Your task to perform on an android device: turn on the 24-hour format for clock Image 0: 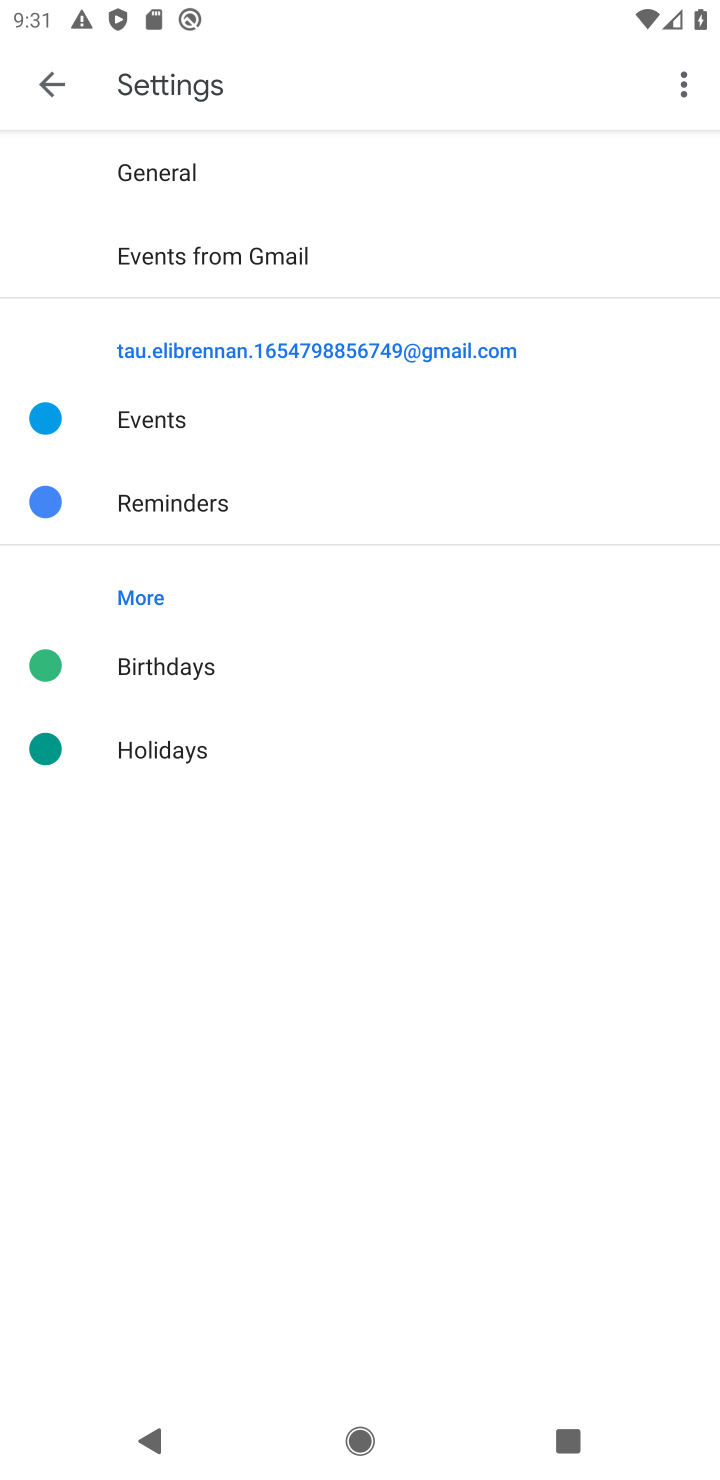
Step 0: press home button
Your task to perform on an android device: turn on the 24-hour format for clock Image 1: 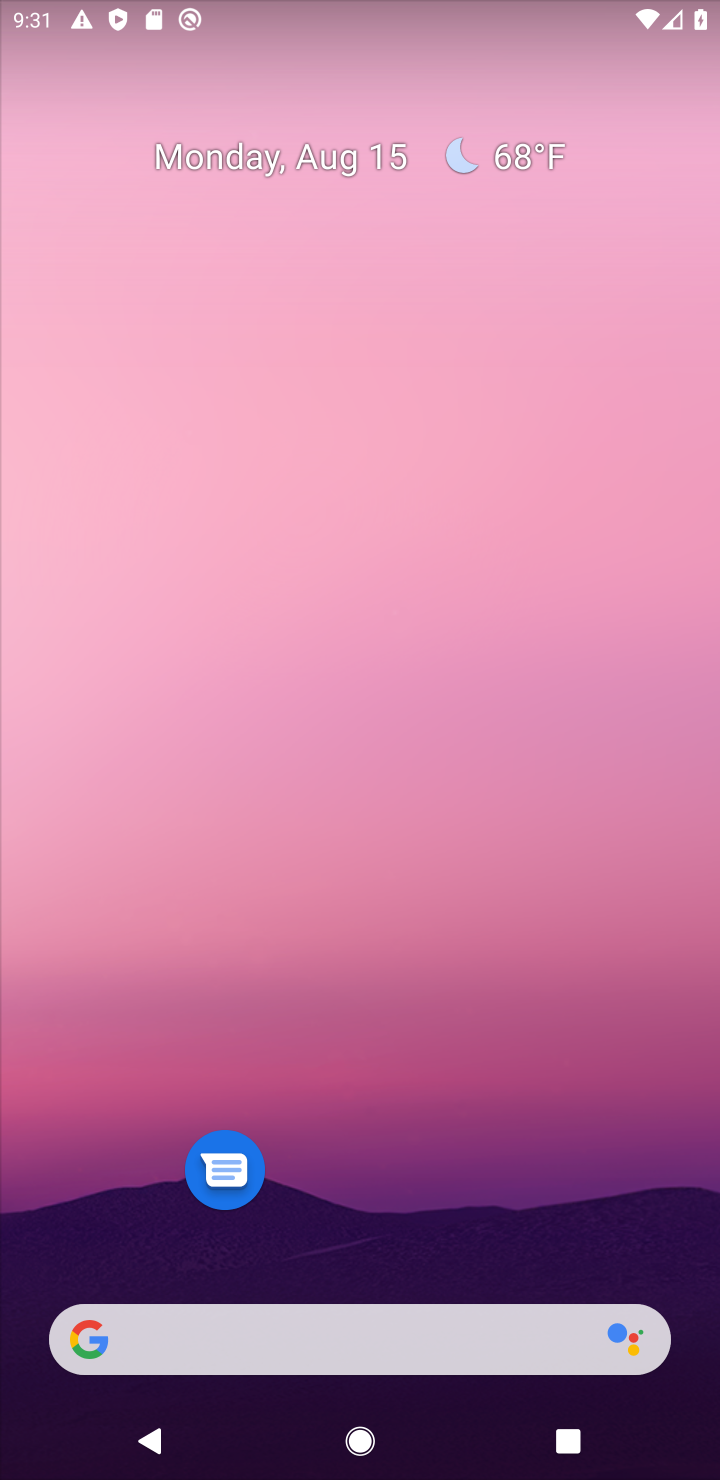
Step 1: drag from (359, 1265) to (529, 13)
Your task to perform on an android device: turn on the 24-hour format for clock Image 2: 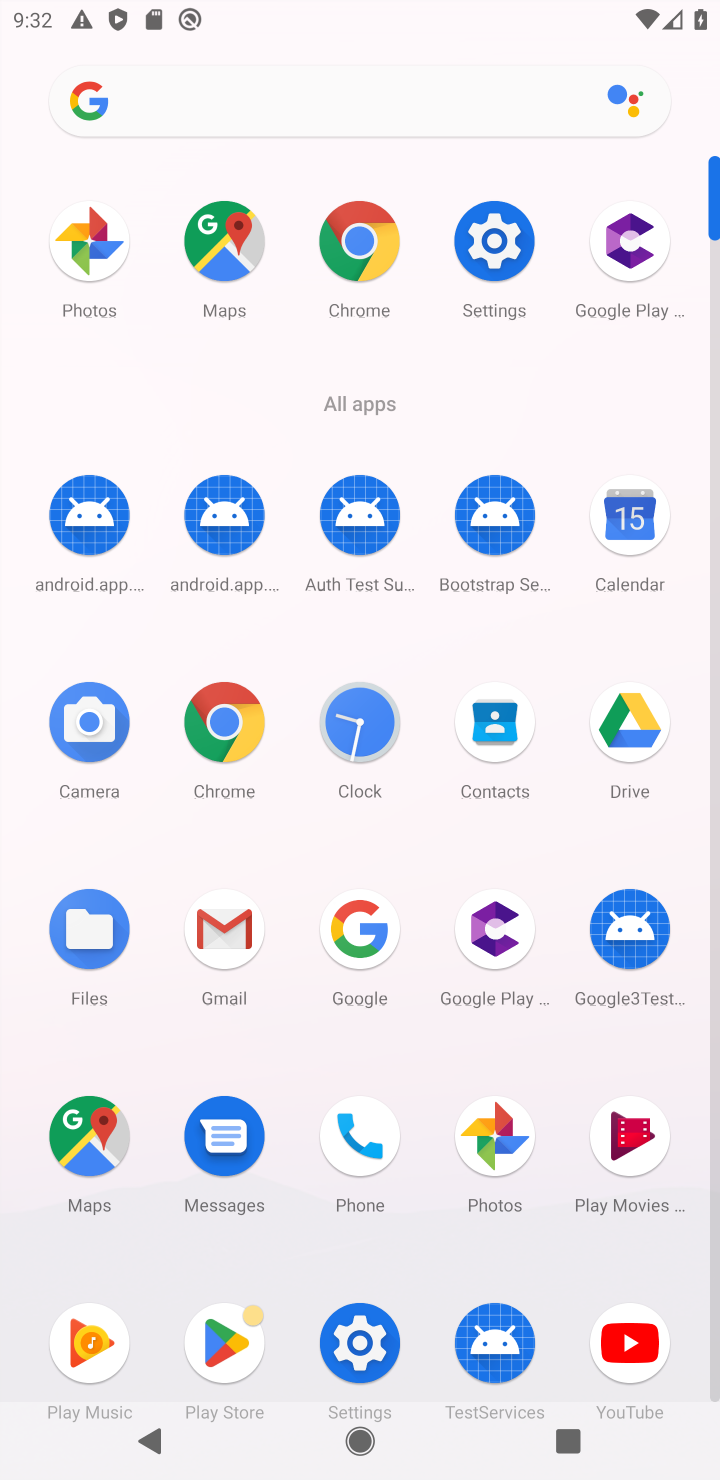
Step 2: click (354, 741)
Your task to perform on an android device: turn on the 24-hour format for clock Image 3: 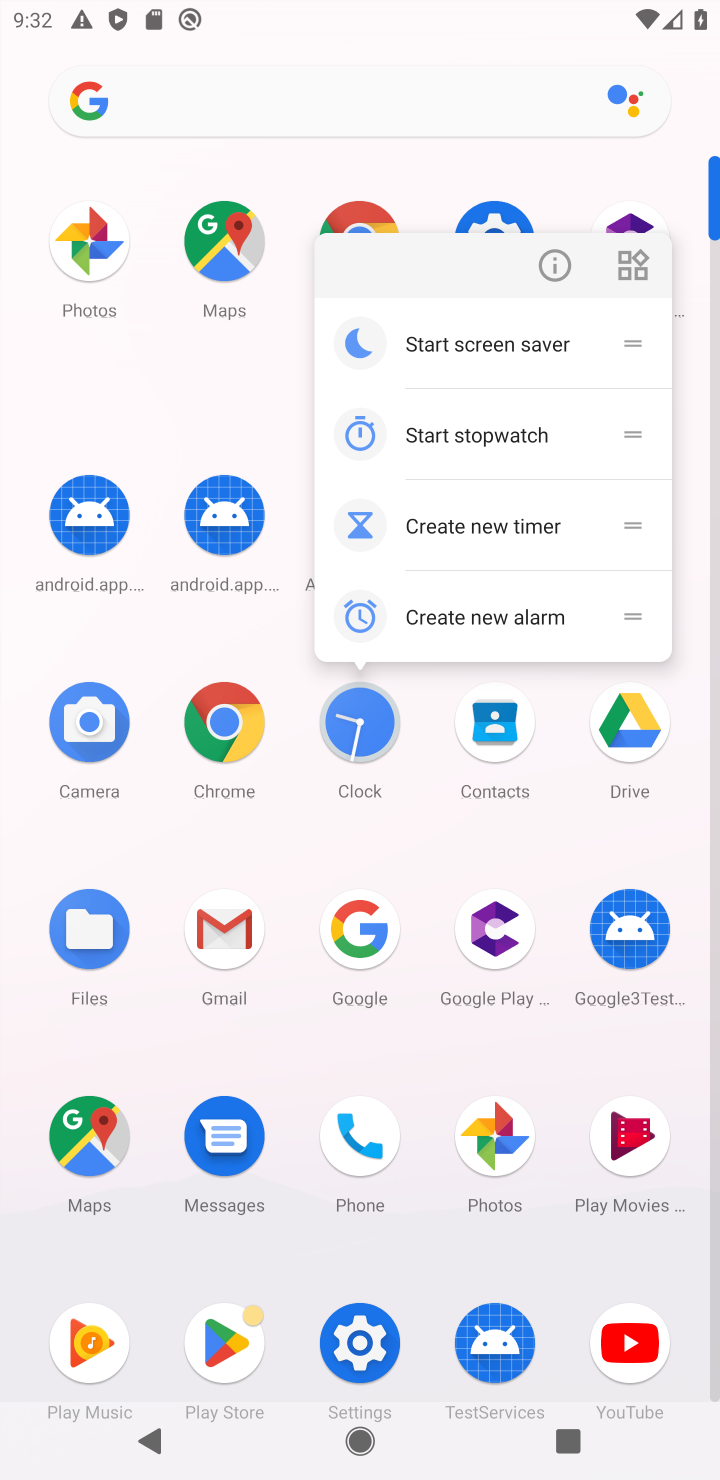
Step 3: click (354, 738)
Your task to perform on an android device: turn on the 24-hour format for clock Image 4: 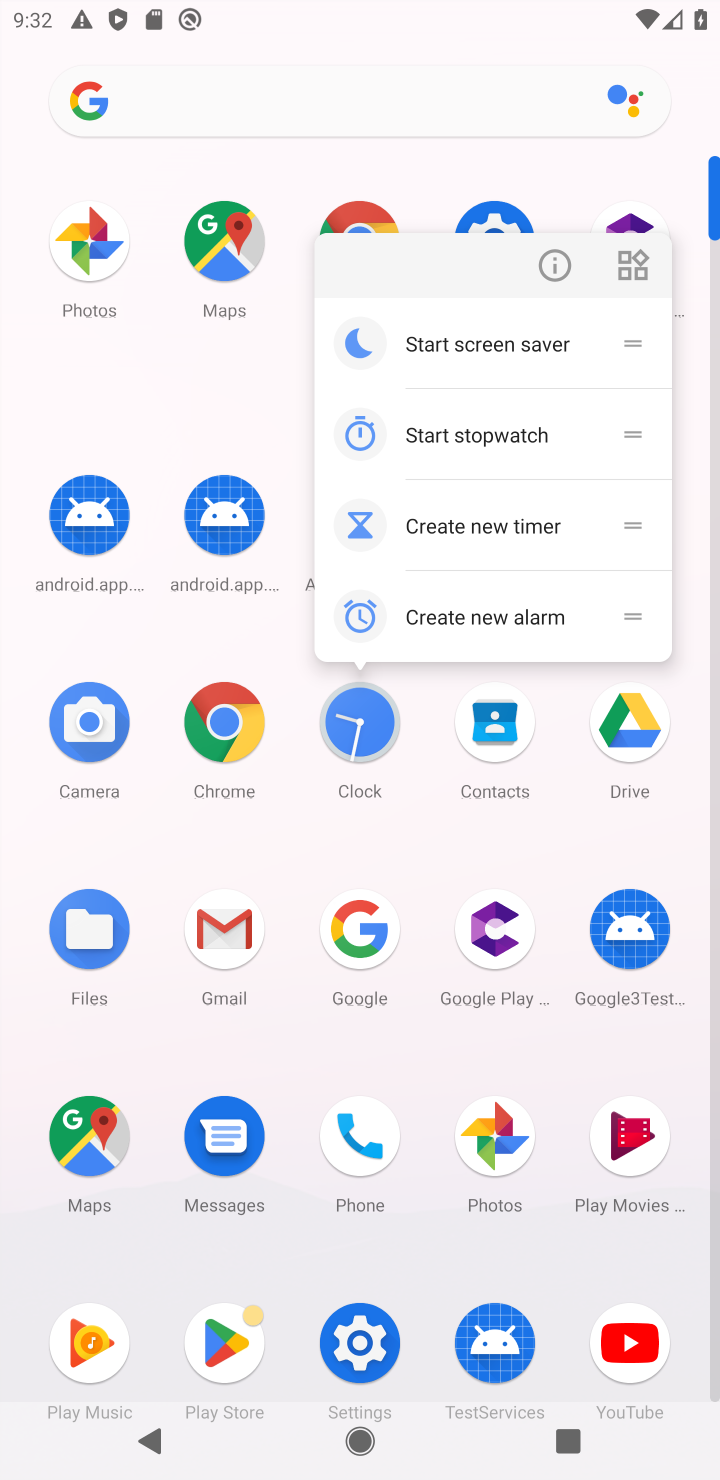
Step 4: click (347, 734)
Your task to perform on an android device: turn on the 24-hour format for clock Image 5: 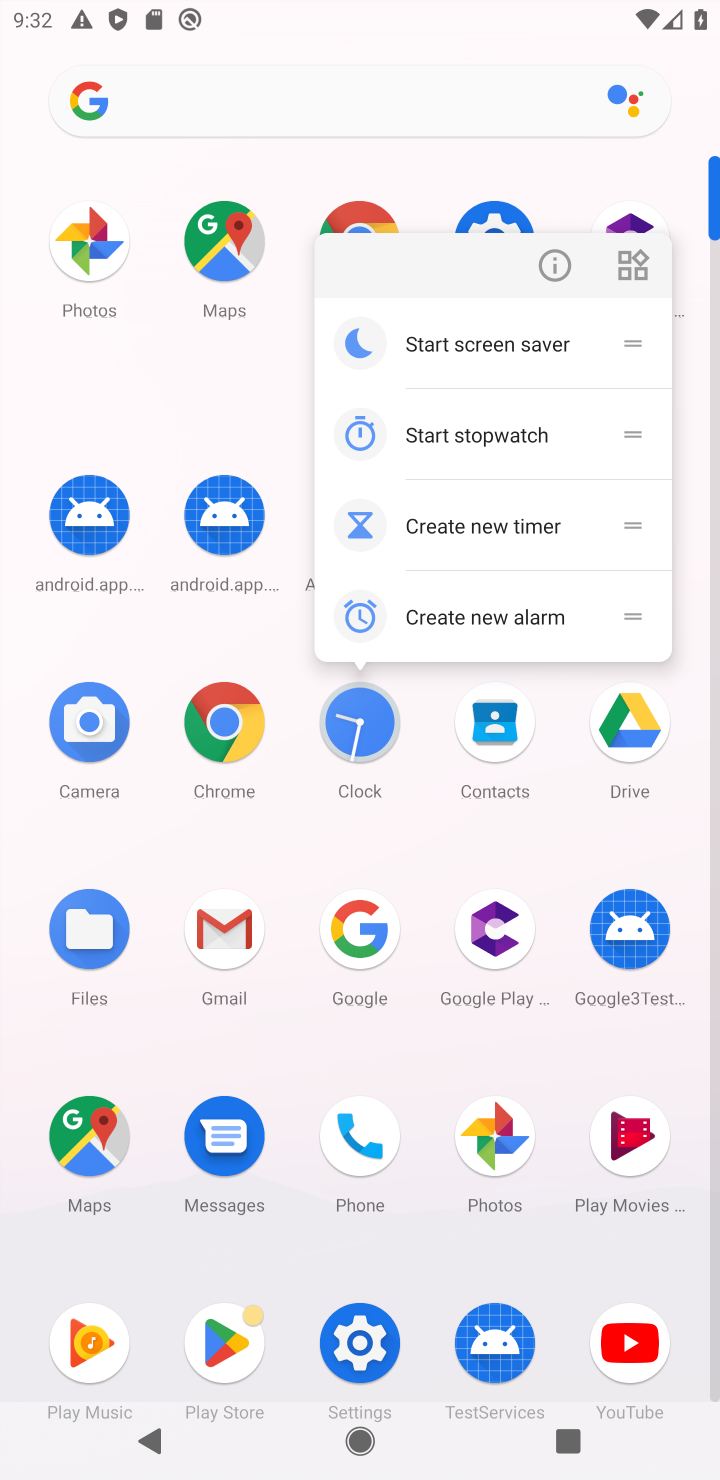
Step 5: click (335, 751)
Your task to perform on an android device: turn on the 24-hour format for clock Image 6: 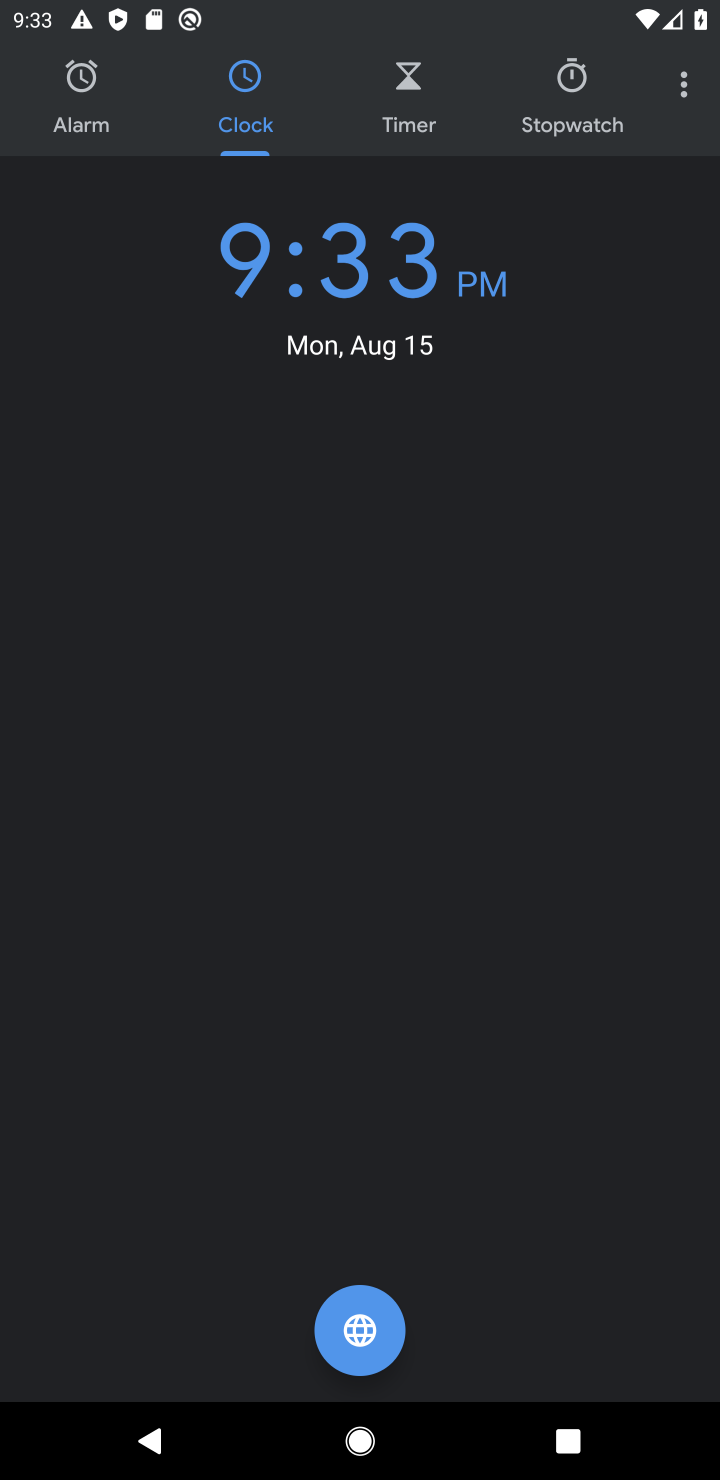
Step 6: click (693, 100)
Your task to perform on an android device: turn on the 24-hour format for clock Image 7: 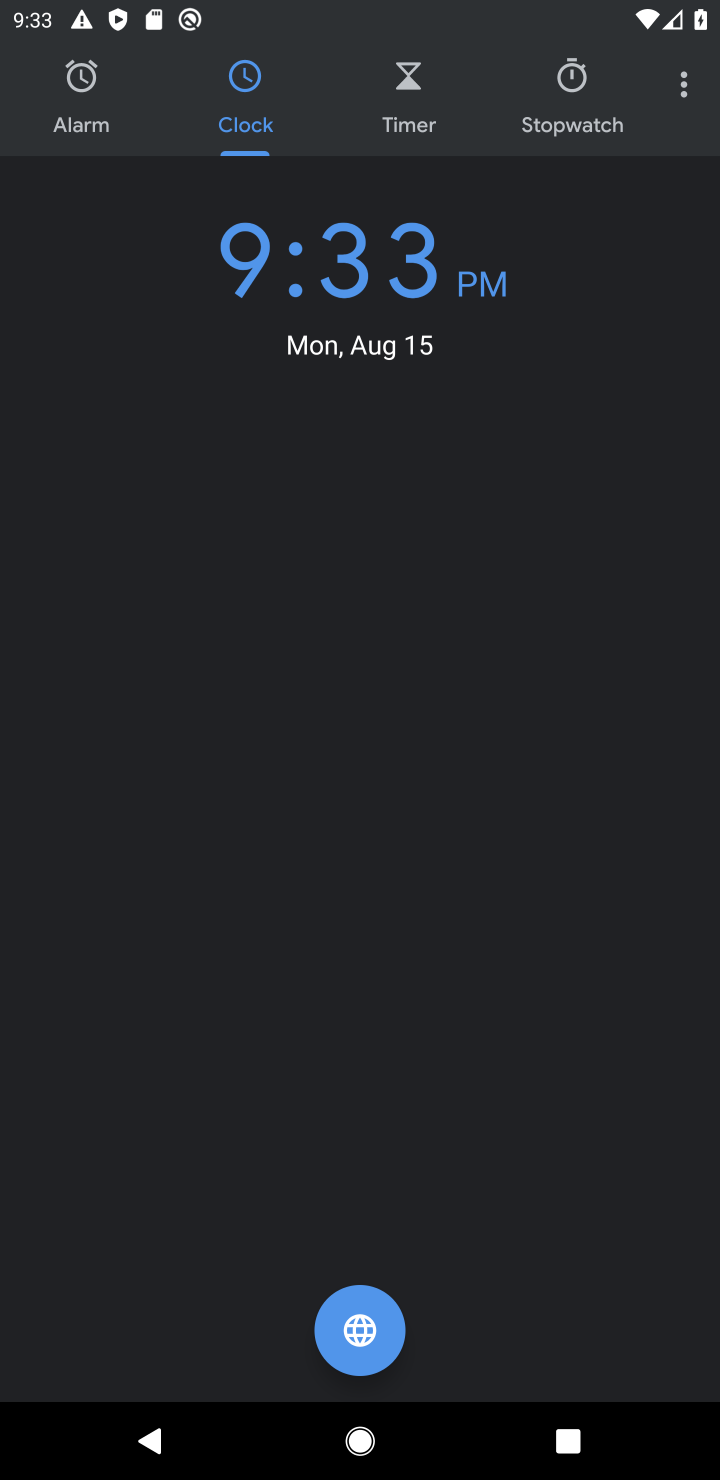
Step 7: click (552, 458)
Your task to perform on an android device: turn on the 24-hour format for clock Image 8: 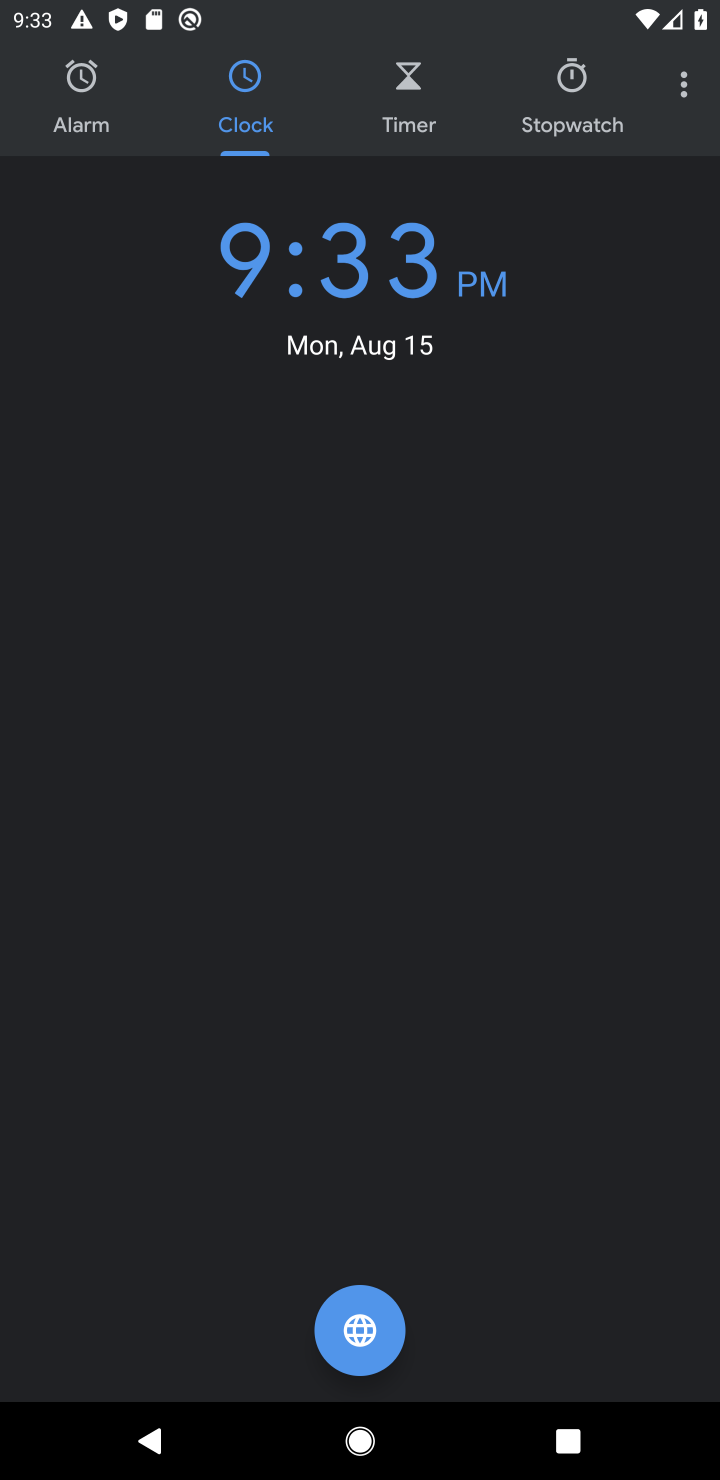
Step 8: click (586, 363)
Your task to perform on an android device: turn on the 24-hour format for clock Image 9: 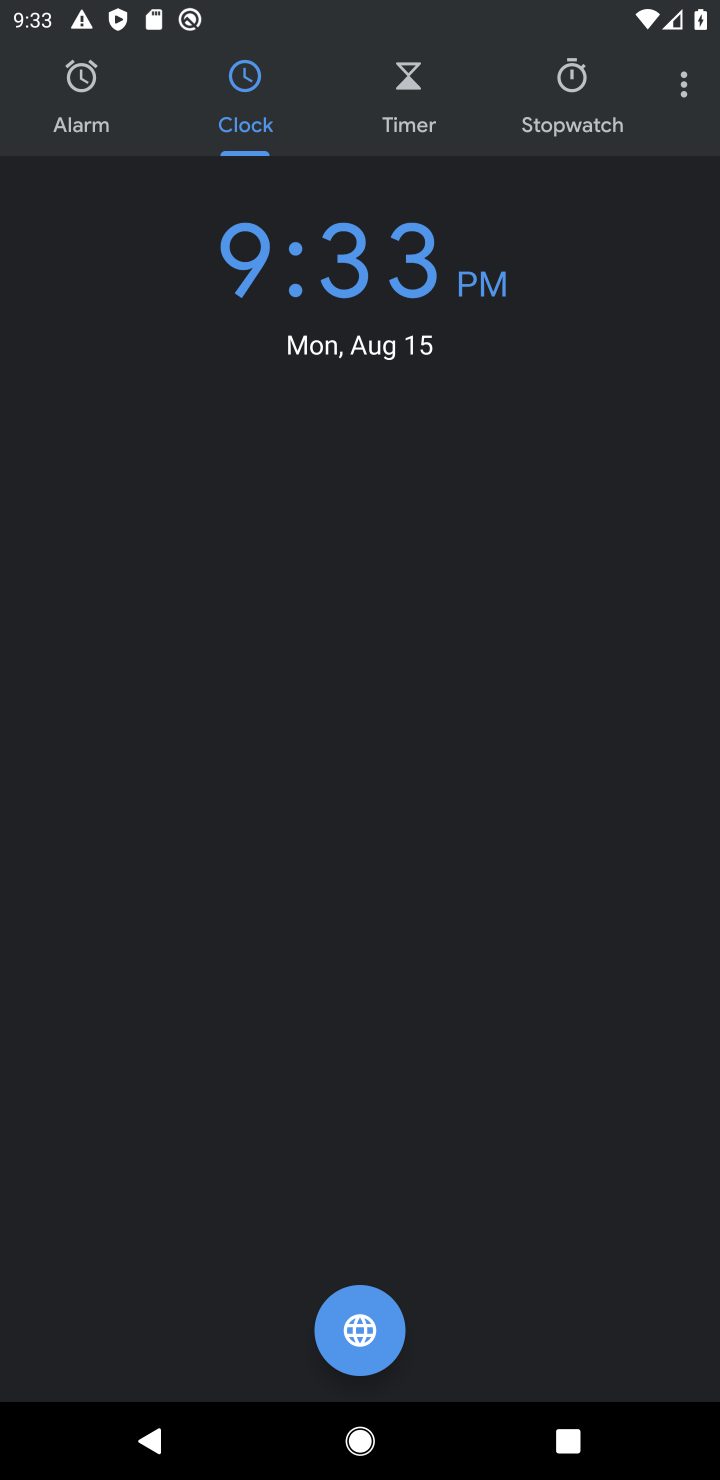
Step 9: click (667, 106)
Your task to perform on an android device: turn on the 24-hour format for clock Image 10: 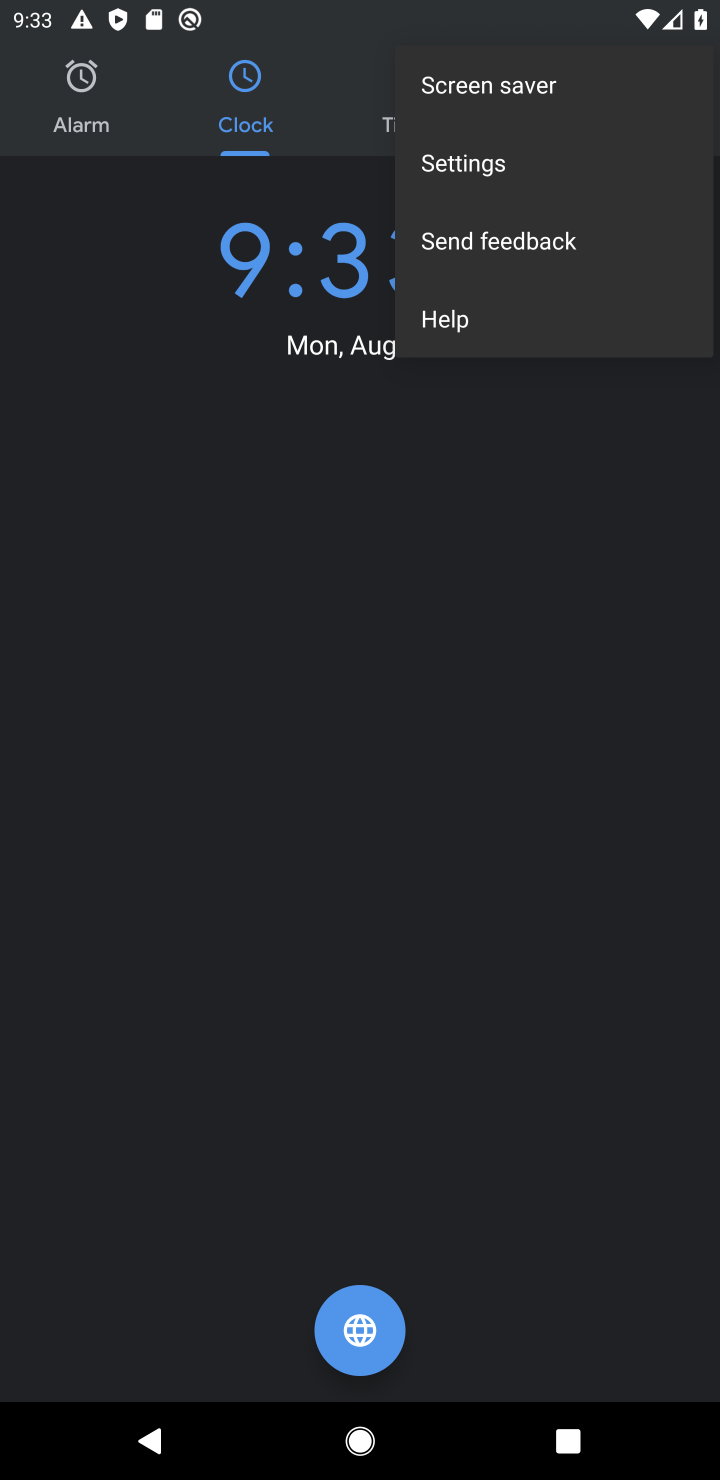
Step 10: click (490, 177)
Your task to perform on an android device: turn on the 24-hour format for clock Image 11: 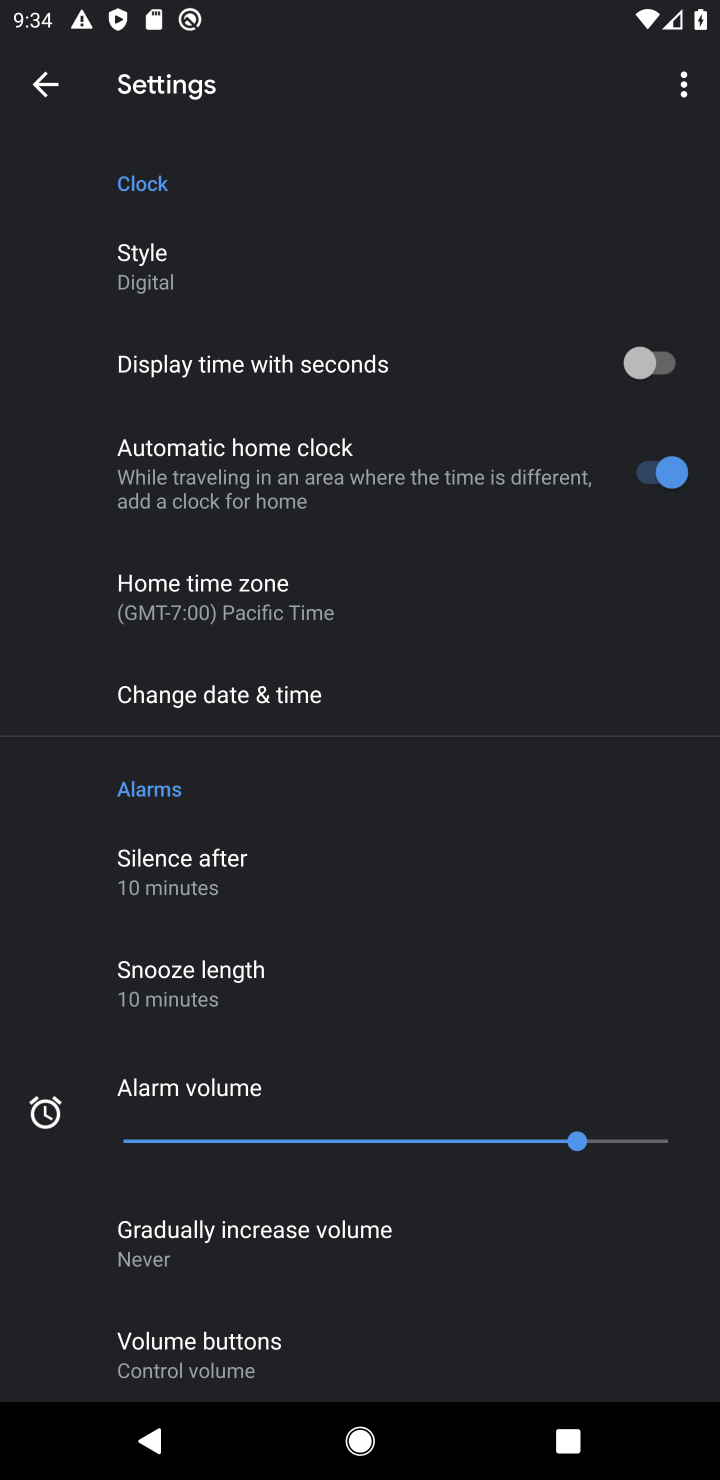
Step 11: click (229, 699)
Your task to perform on an android device: turn on the 24-hour format for clock Image 12: 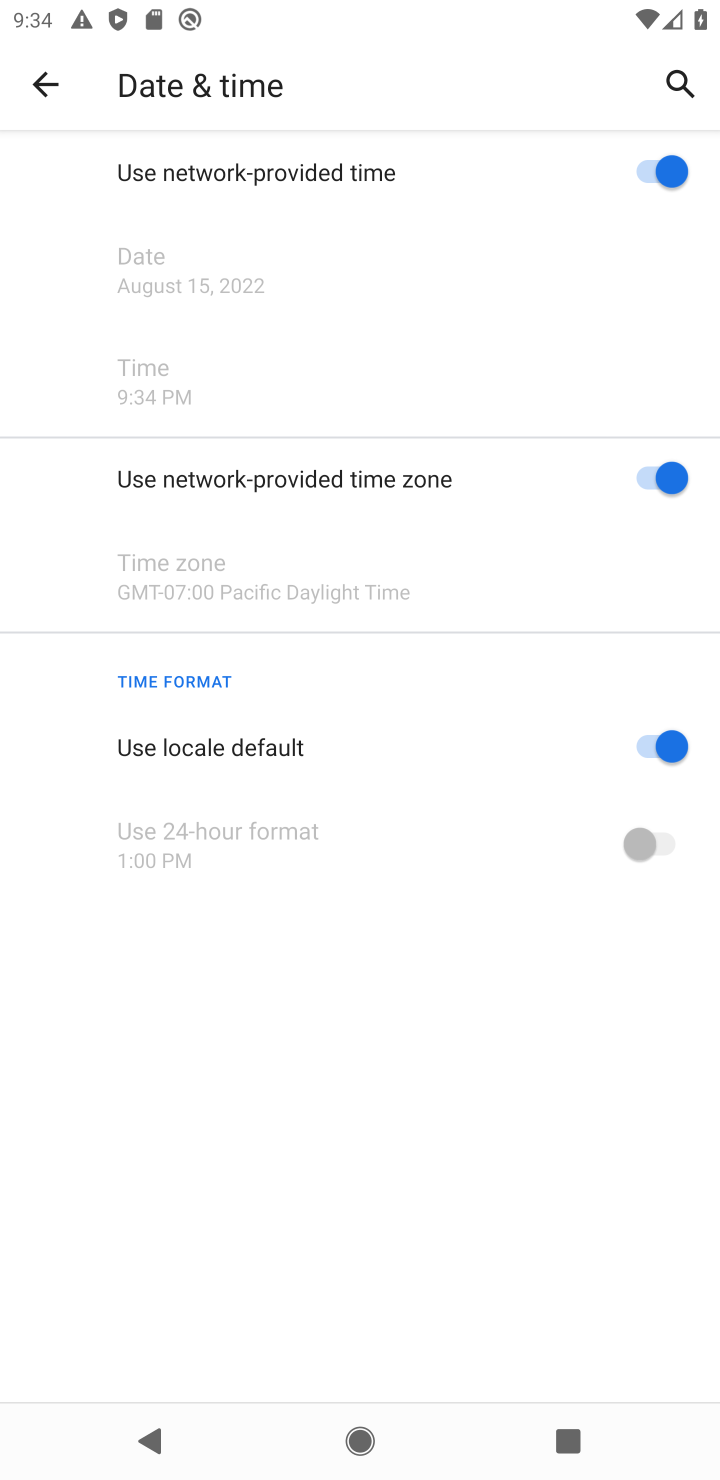
Step 12: click (652, 864)
Your task to perform on an android device: turn on the 24-hour format for clock Image 13: 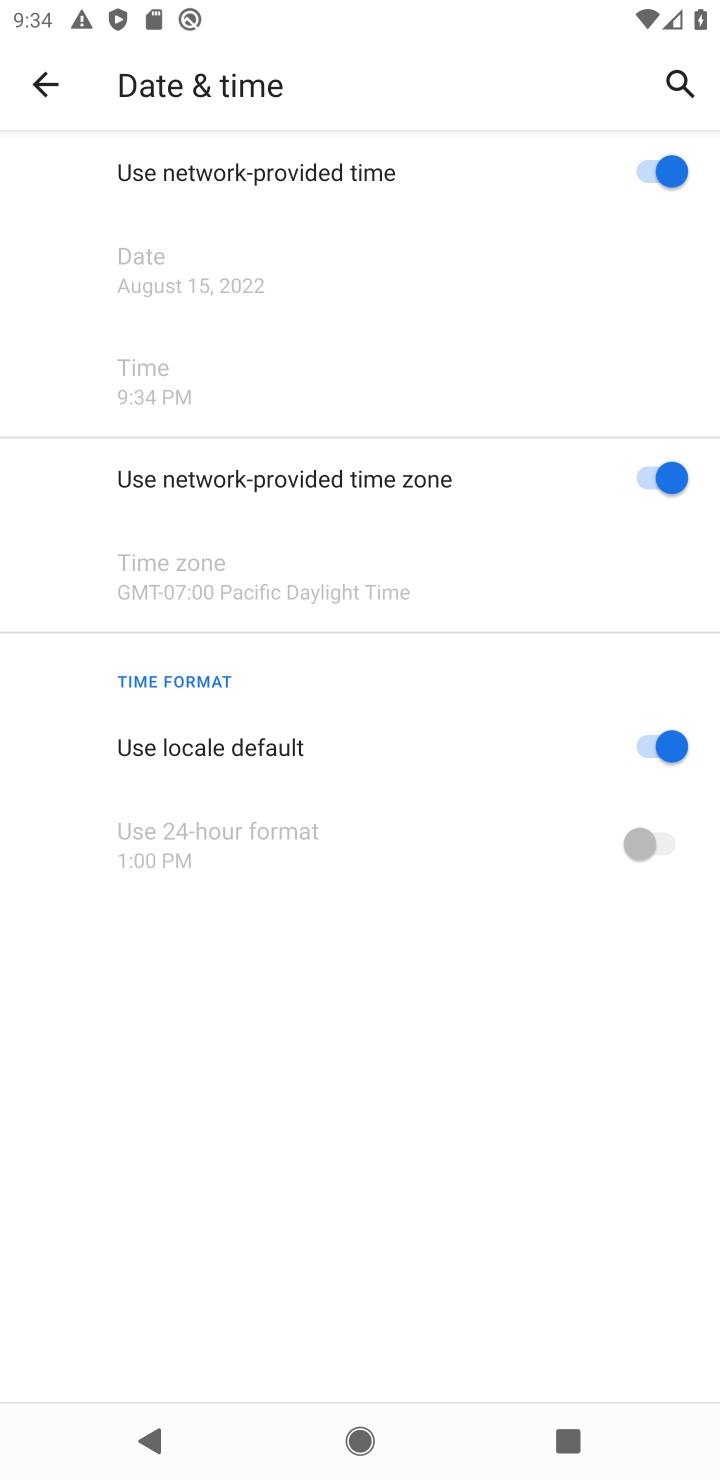
Step 13: click (609, 835)
Your task to perform on an android device: turn on the 24-hour format for clock Image 14: 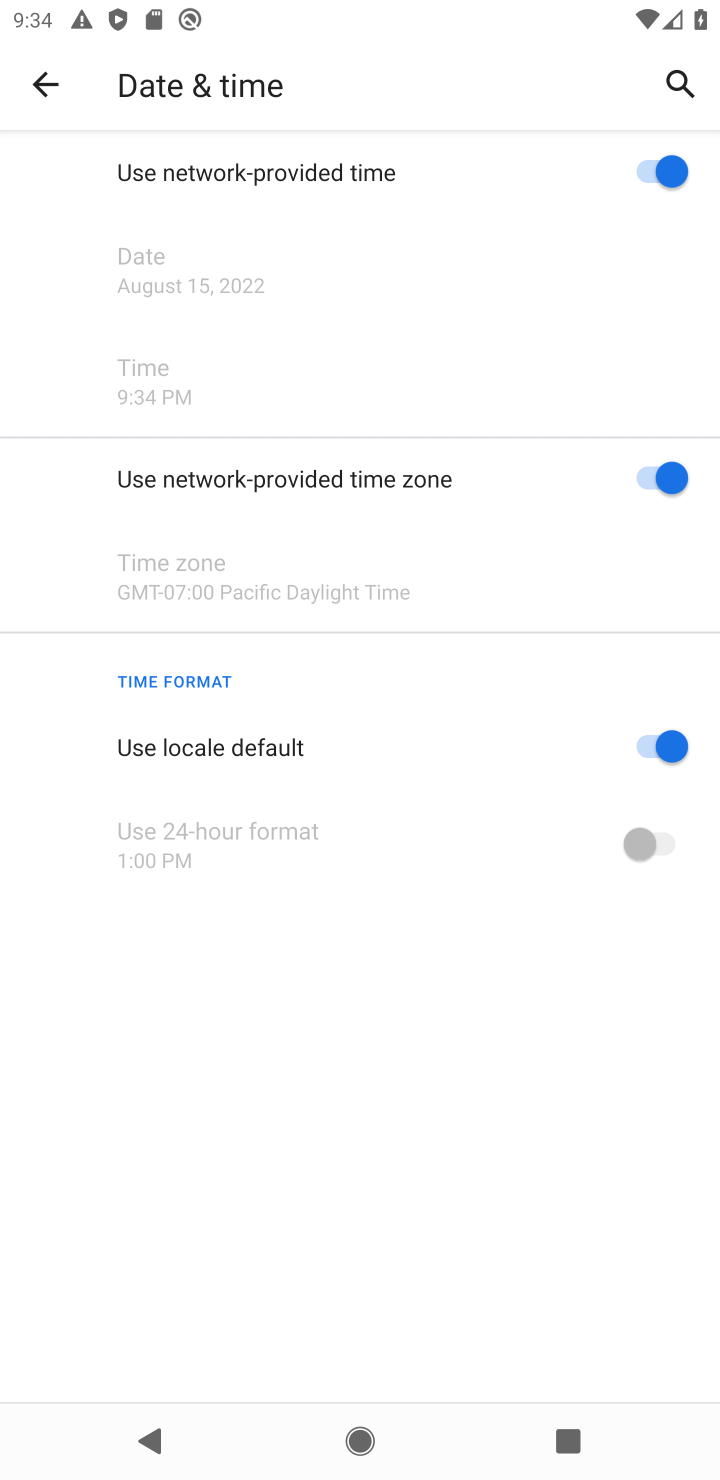
Step 14: click (633, 848)
Your task to perform on an android device: turn on the 24-hour format for clock Image 15: 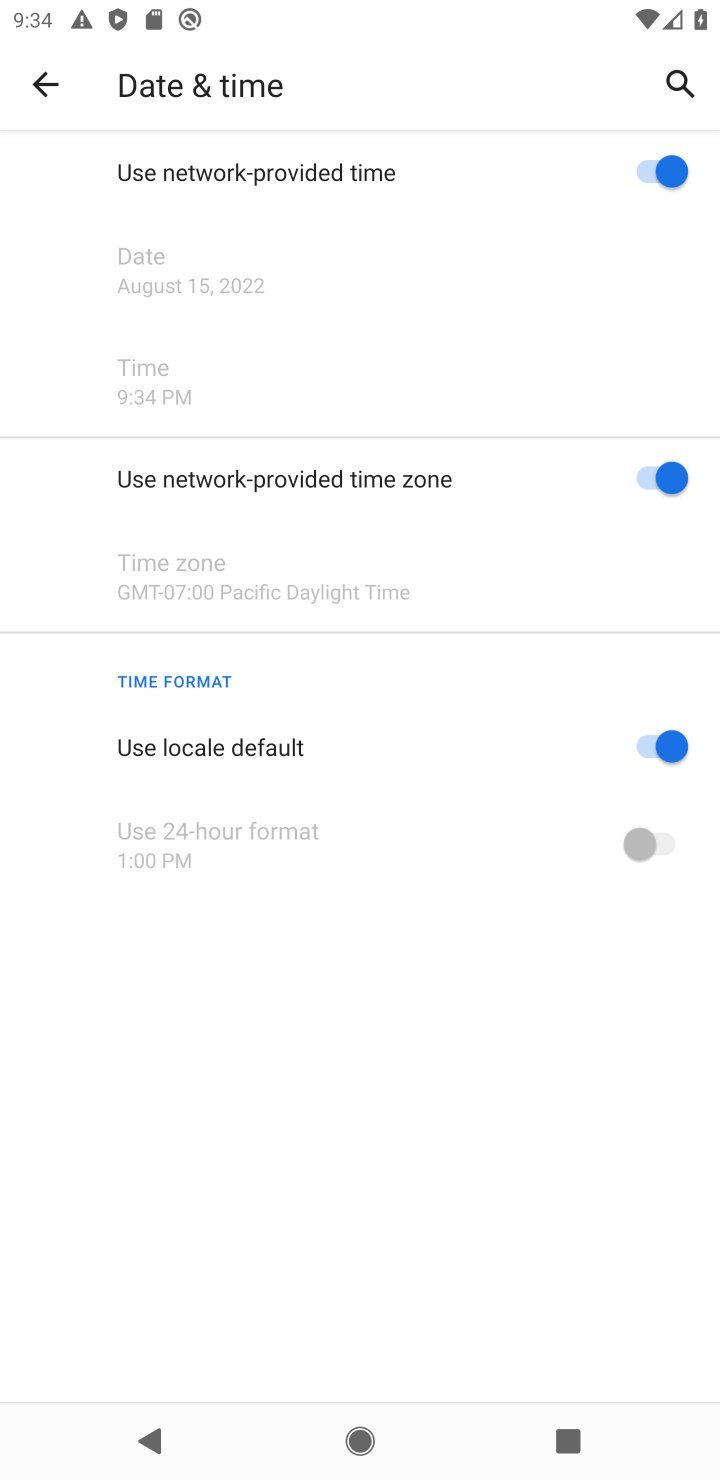
Step 15: click (665, 734)
Your task to perform on an android device: turn on the 24-hour format for clock Image 16: 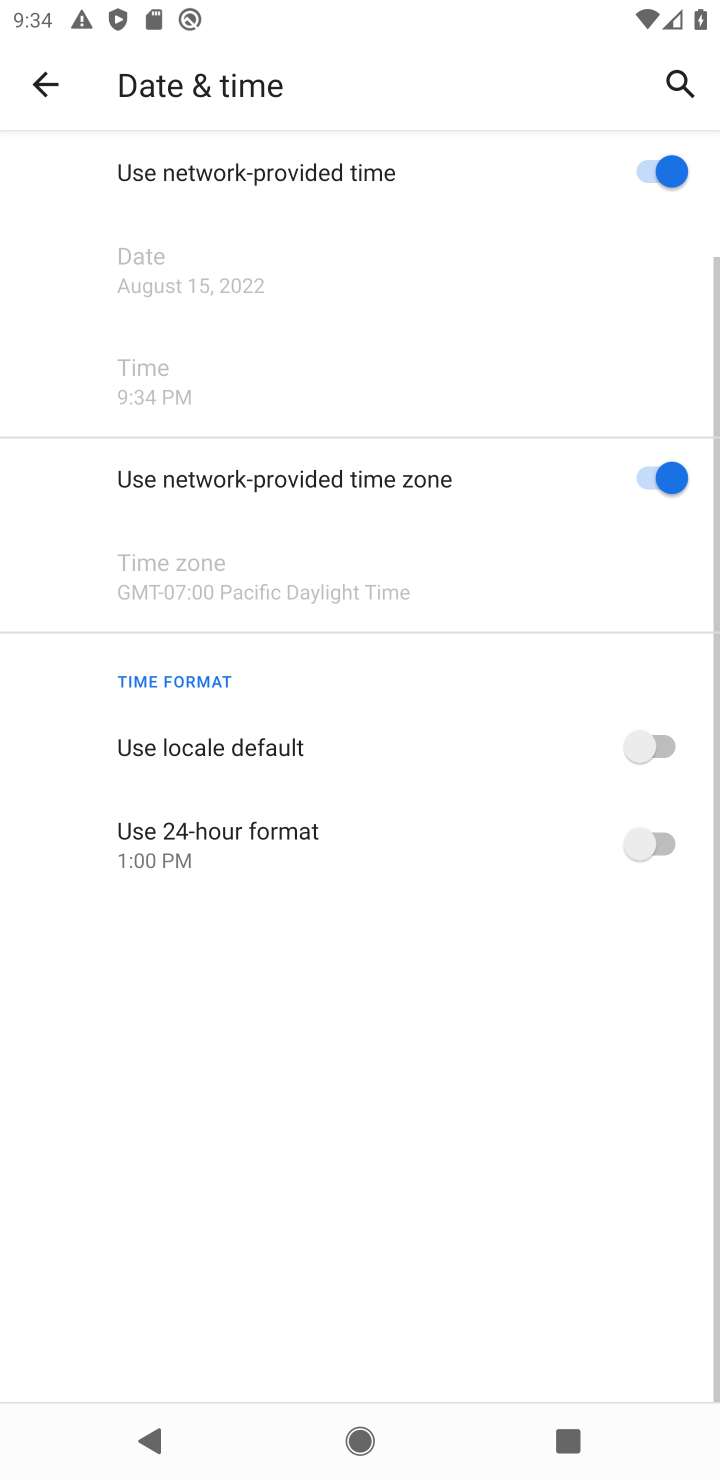
Step 16: click (657, 838)
Your task to perform on an android device: turn on the 24-hour format for clock Image 17: 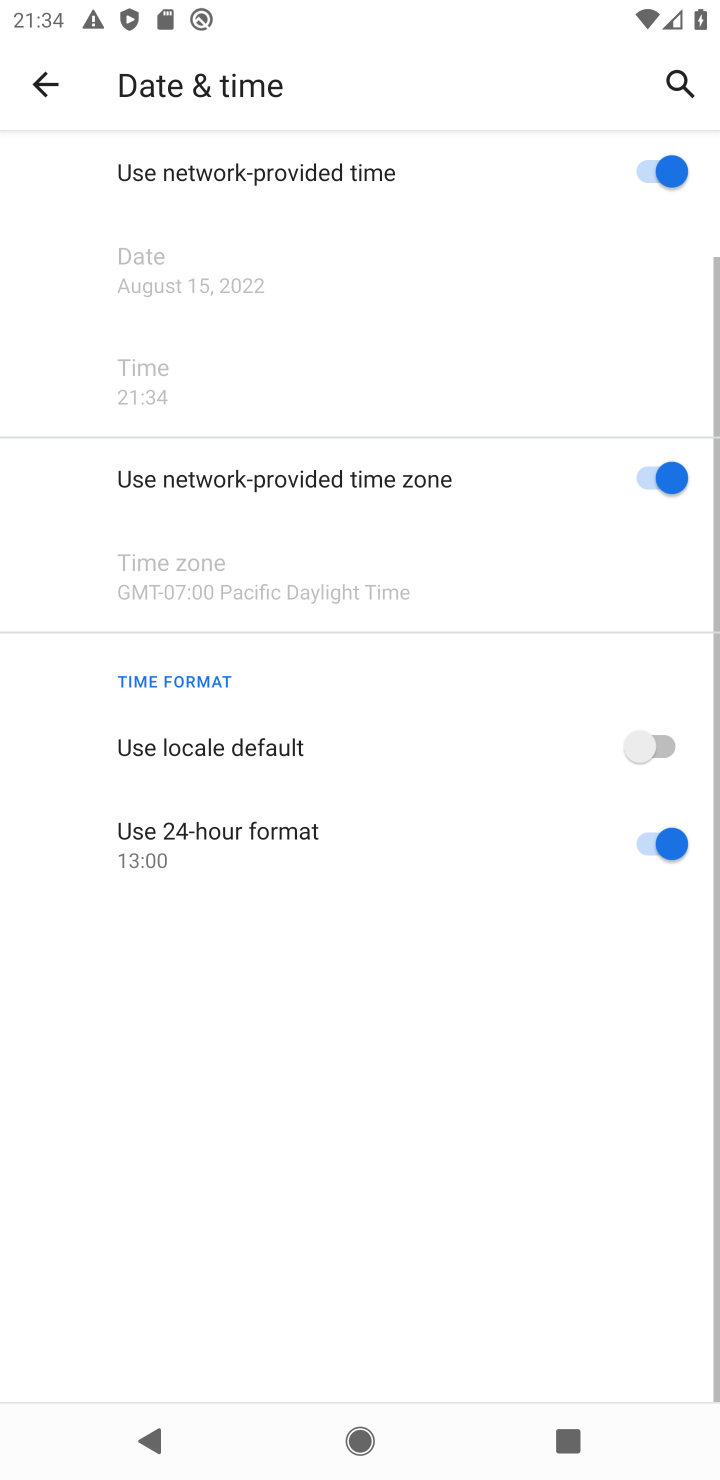
Step 17: task complete